Your task to perform on an android device: Find coffee shops on Maps Image 0: 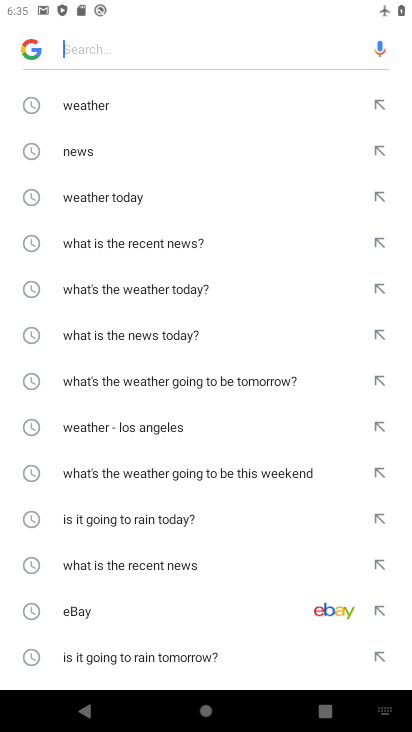
Step 0: press home button
Your task to perform on an android device: Find coffee shops on Maps Image 1: 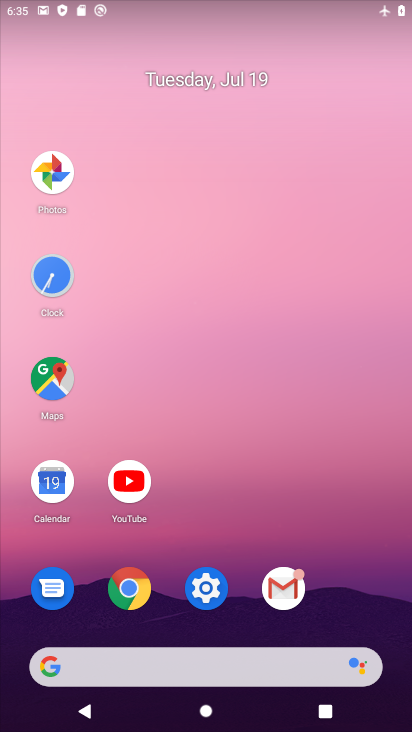
Step 1: click (62, 385)
Your task to perform on an android device: Find coffee shops on Maps Image 2: 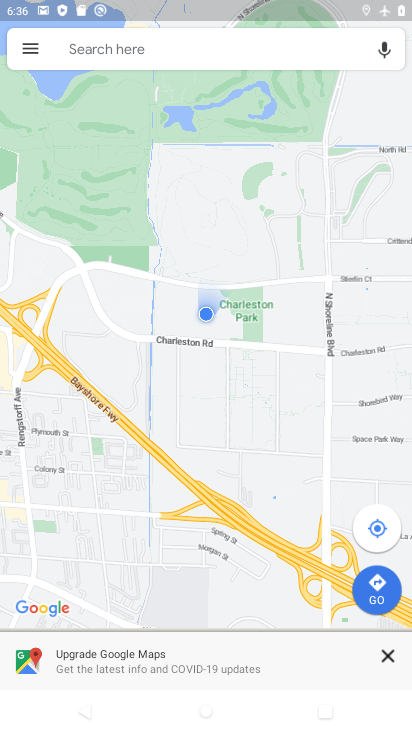
Step 2: click (131, 42)
Your task to perform on an android device: Find coffee shops on Maps Image 3: 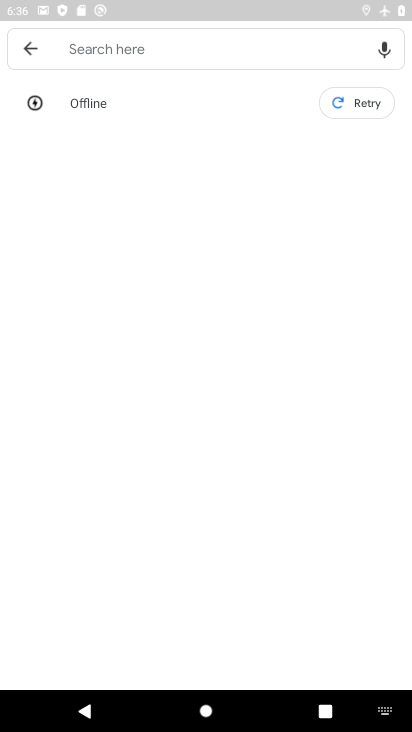
Step 3: type "coffee shops"
Your task to perform on an android device: Find coffee shops on Maps Image 4: 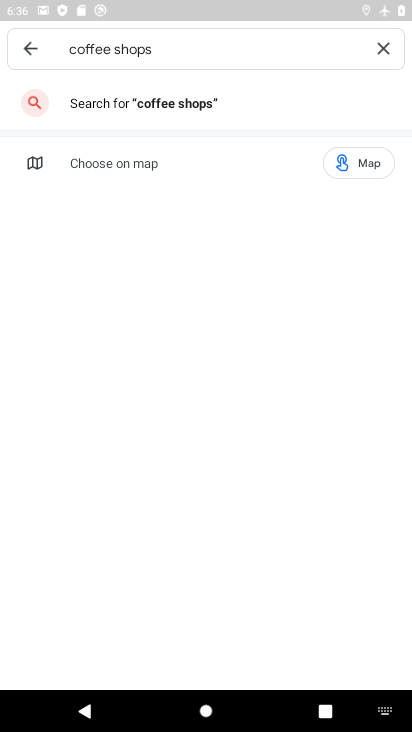
Step 4: task complete